Your task to perform on an android device: add a contact in the contacts app Image 0: 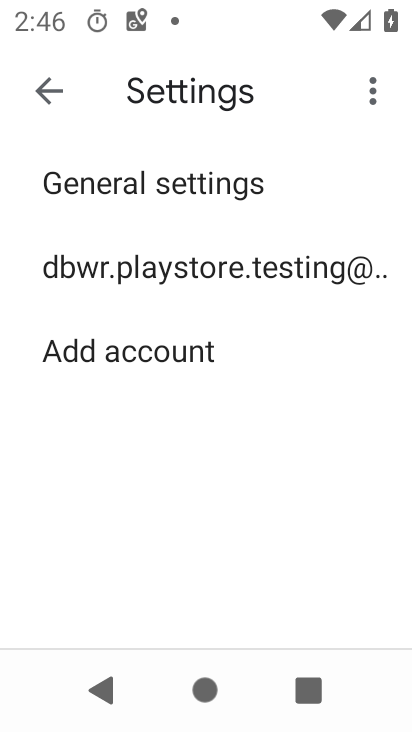
Step 0: press home button
Your task to perform on an android device: add a contact in the contacts app Image 1: 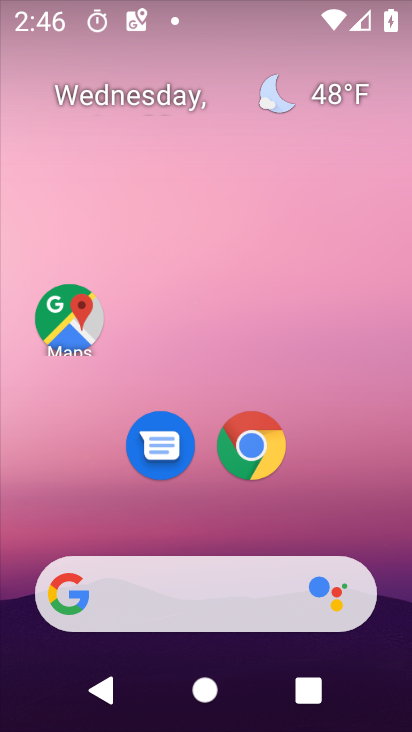
Step 1: drag from (378, 541) to (373, 66)
Your task to perform on an android device: add a contact in the contacts app Image 2: 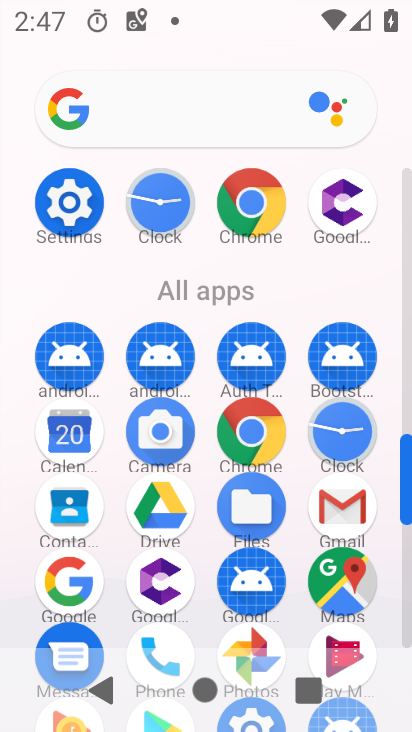
Step 2: click (70, 515)
Your task to perform on an android device: add a contact in the contacts app Image 3: 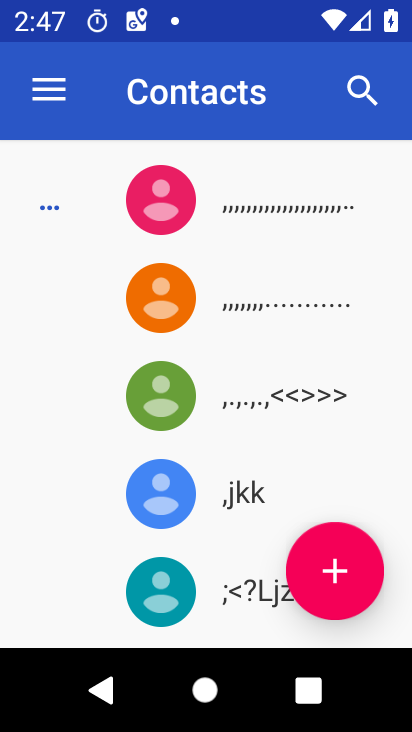
Step 3: click (318, 568)
Your task to perform on an android device: add a contact in the contacts app Image 4: 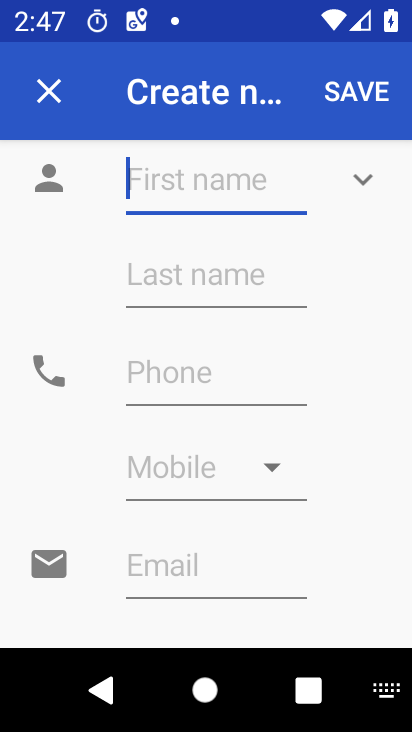
Step 4: type "tina"
Your task to perform on an android device: add a contact in the contacts app Image 5: 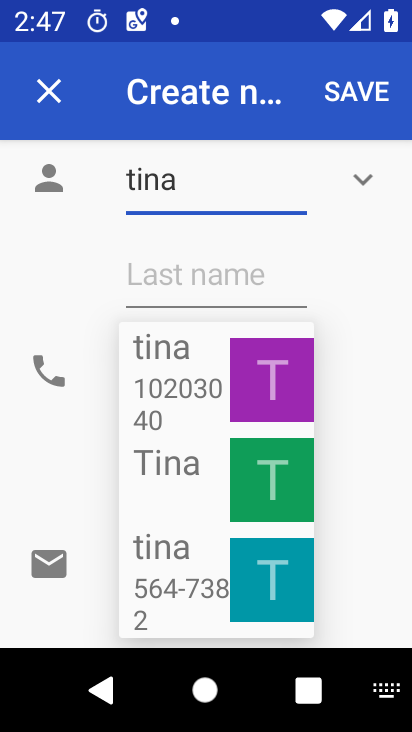
Step 5: click (354, 360)
Your task to perform on an android device: add a contact in the contacts app Image 6: 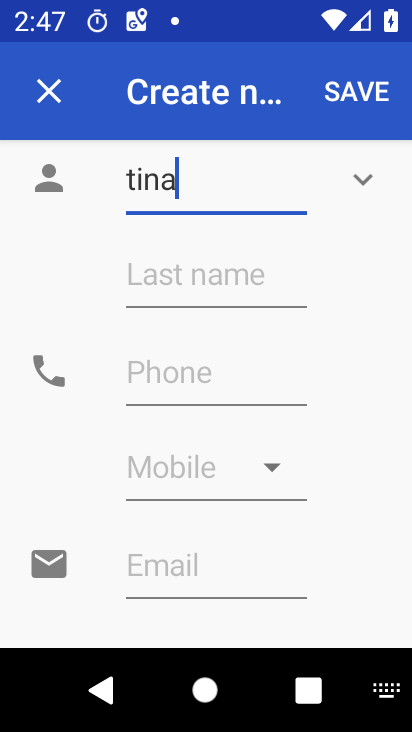
Step 6: click (195, 381)
Your task to perform on an android device: add a contact in the contacts app Image 7: 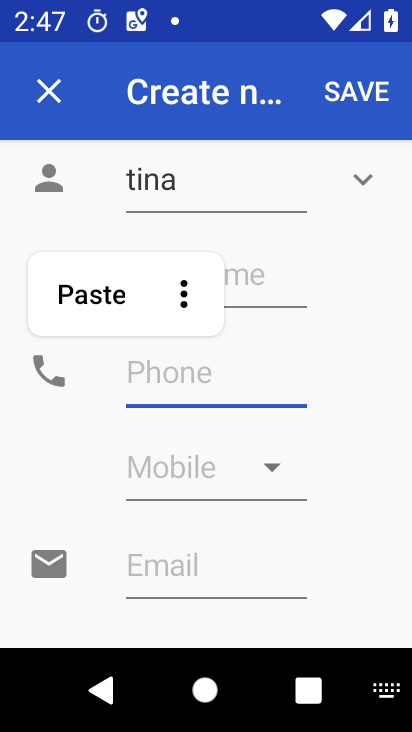
Step 7: type "456786543"
Your task to perform on an android device: add a contact in the contacts app Image 8: 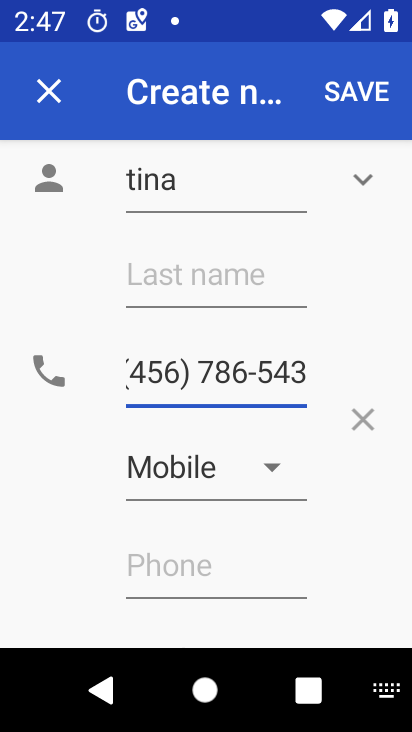
Step 8: click (323, 95)
Your task to perform on an android device: add a contact in the contacts app Image 9: 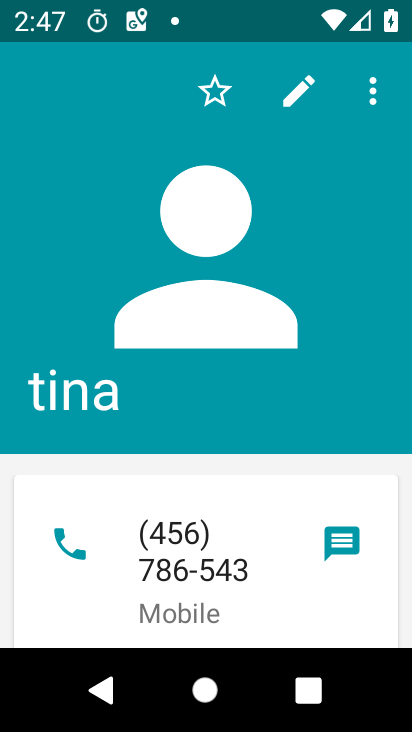
Step 9: task complete